Your task to perform on an android device: See recent photos Image 0: 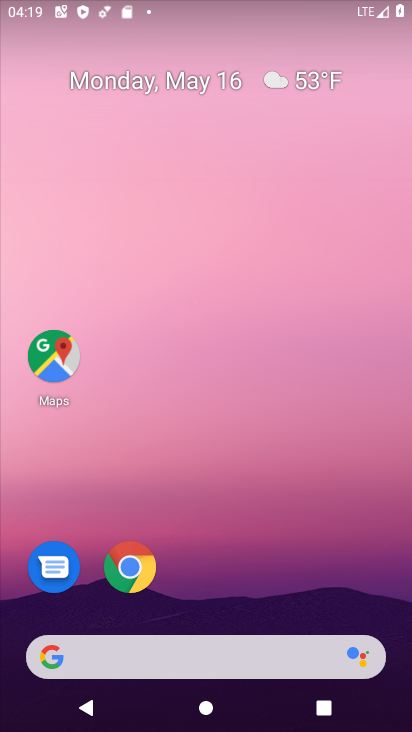
Step 0: drag from (283, 650) to (338, 11)
Your task to perform on an android device: See recent photos Image 1: 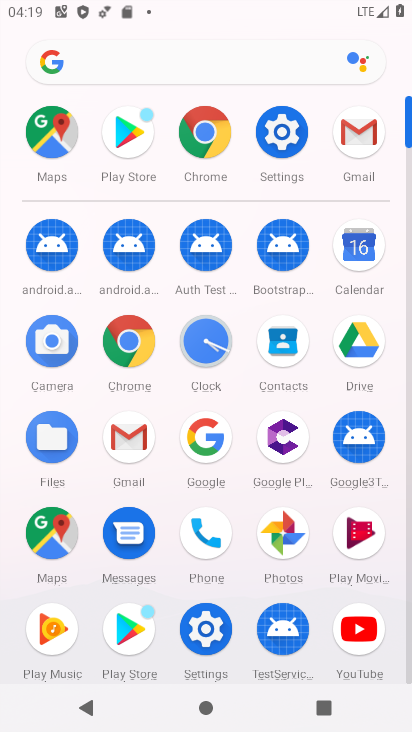
Step 1: click (269, 544)
Your task to perform on an android device: See recent photos Image 2: 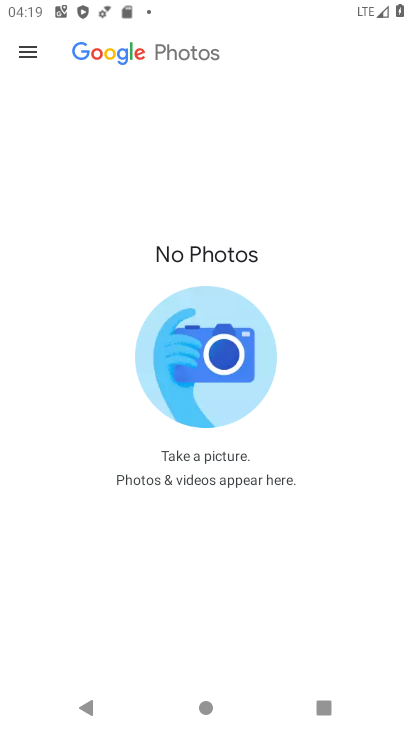
Step 2: click (19, 55)
Your task to perform on an android device: See recent photos Image 3: 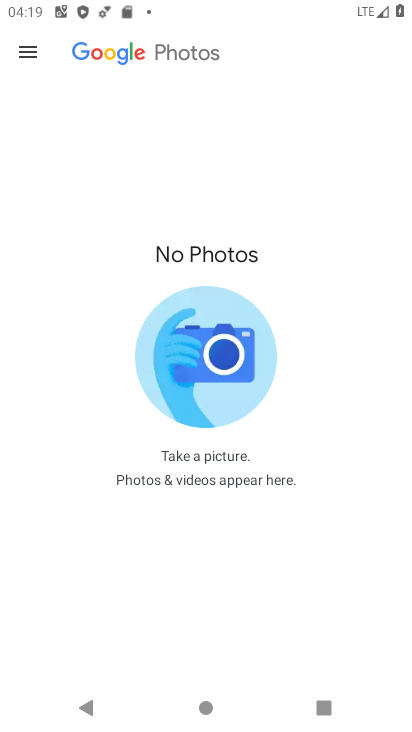
Step 3: click (28, 54)
Your task to perform on an android device: See recent photos Image 4: 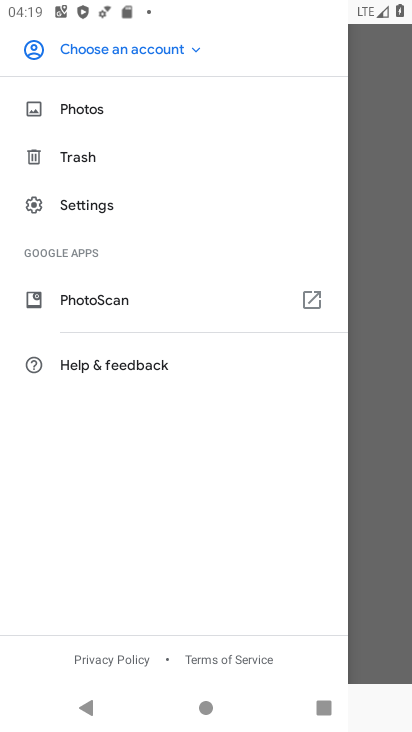
Step 4: drag from (146, 130) to (178, 531)
Your task to perform on an android device: See recent photos Image 5: 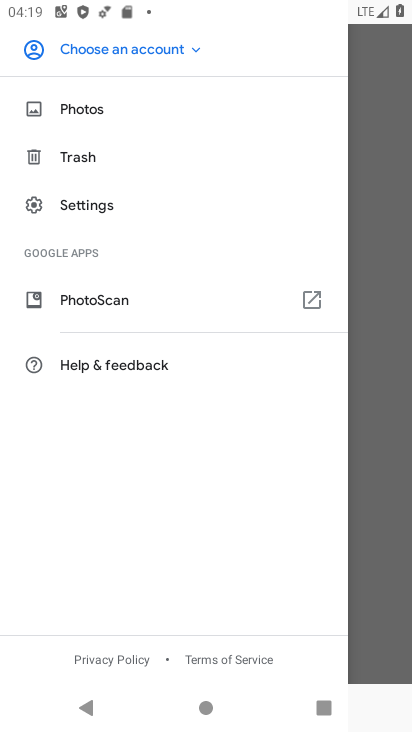
Step 5: click (178, 45)
Your task to perform on an android device: See recent photos Image 6: 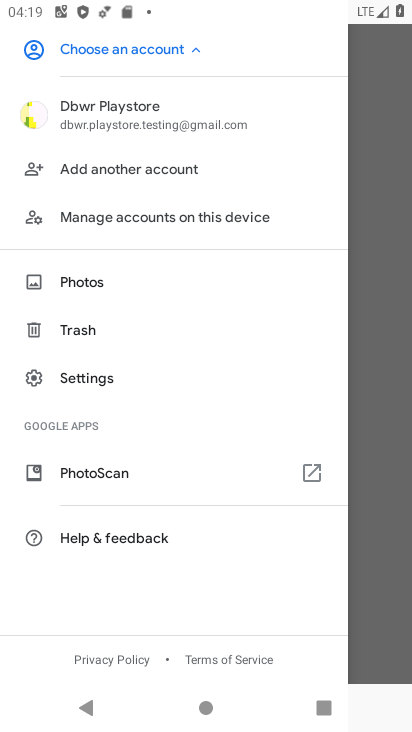
Step 6: click (148, 120)
Your task to perform on an android device: See recent photos Image 7: 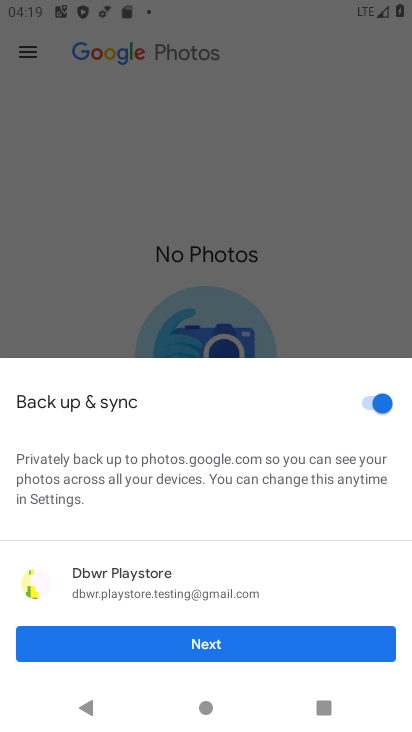
Step 7: click (187, 648)
Your task to perform on an android device: See recent photos Image 8: 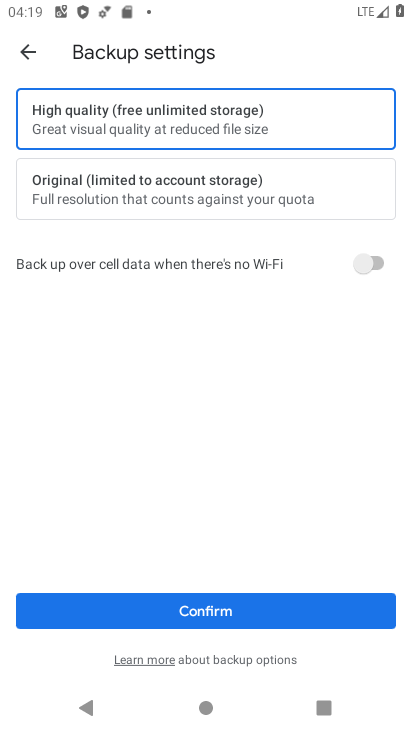
Step 8: click (200, 617)
Your task to perform on an android device: See recent photos Image 9: 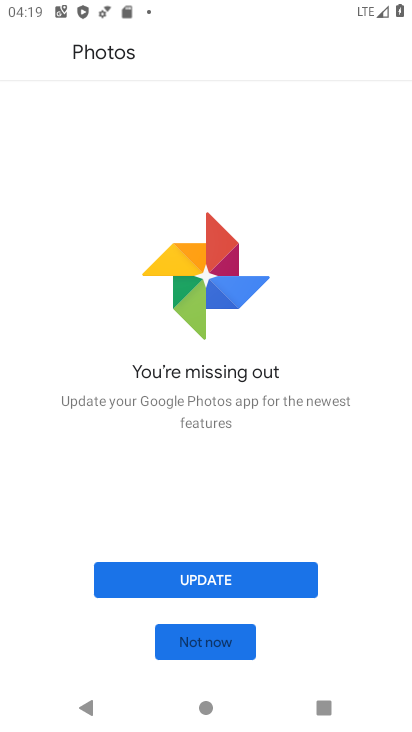
Step 9: click (206, 588)
Your task to perform on an android device: See recent photos Image 10: 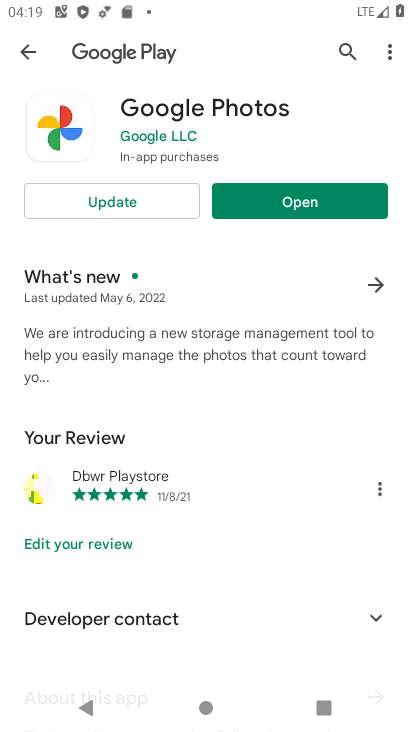
Step 10: click (106, 202)
Your task to perform on an android device: See recent photos Image 11: 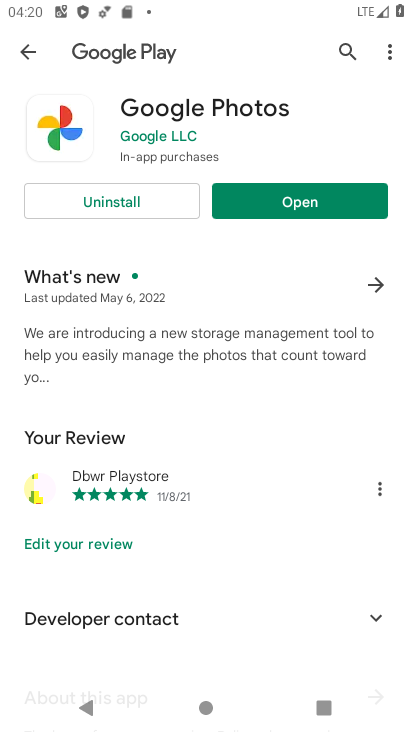
Step 11: click (288, 195)
Your task to perform on an android device: See recent photos Image 12: 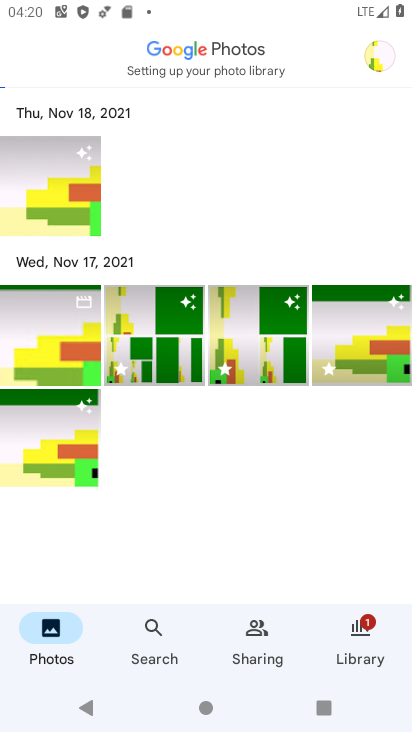
Step 12: task complete